Your task to perform on an android device: Go to accessibility settings Image 0: 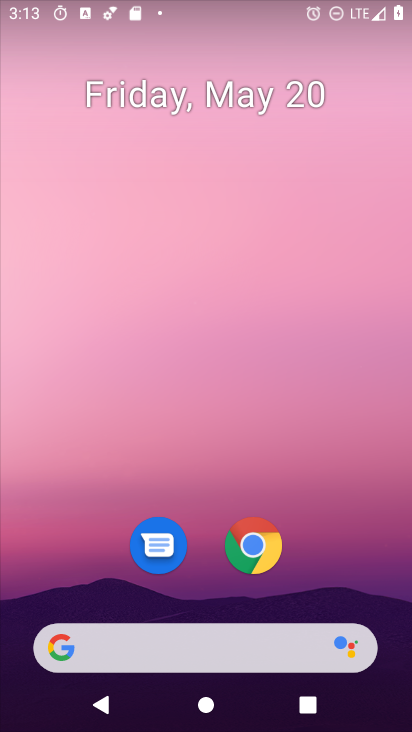
Step 0: task complete